Your task to perform on an android device: install app "Google Duo" Image 0: 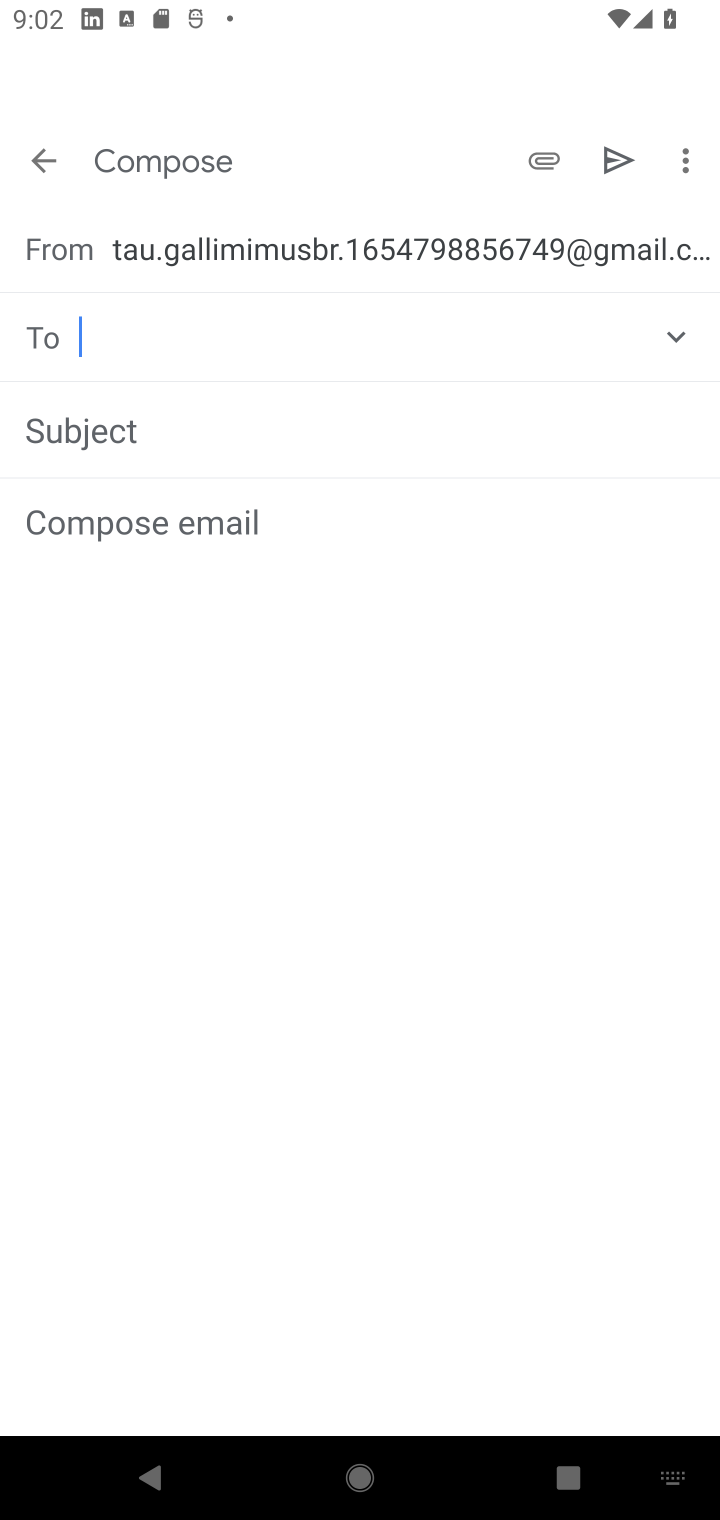
Step 0: press home button
Your task to perform on an android device: install app "Google Duo" Image 1: 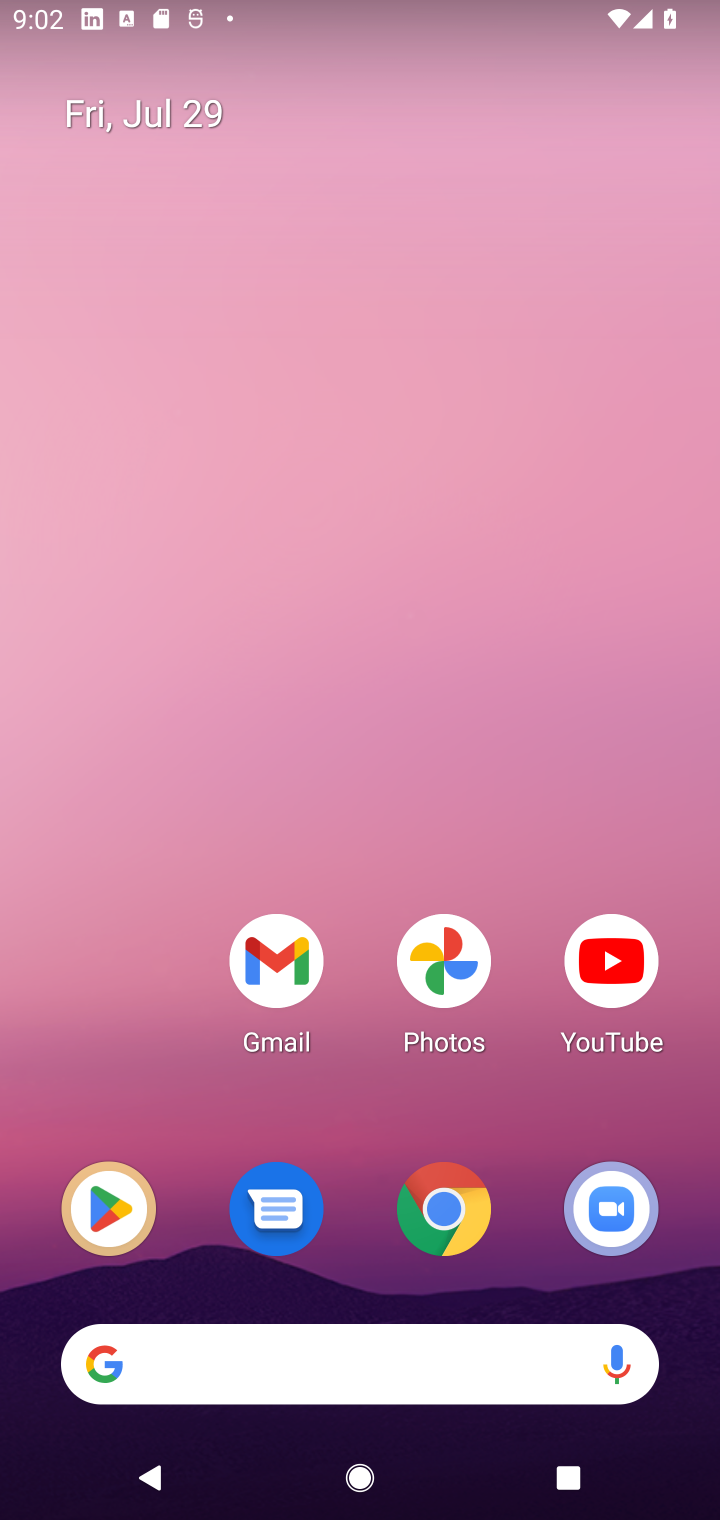
Step 1: click (109, 1210)
Your task to perform on an android device: install app "Google Duo" Image 2: 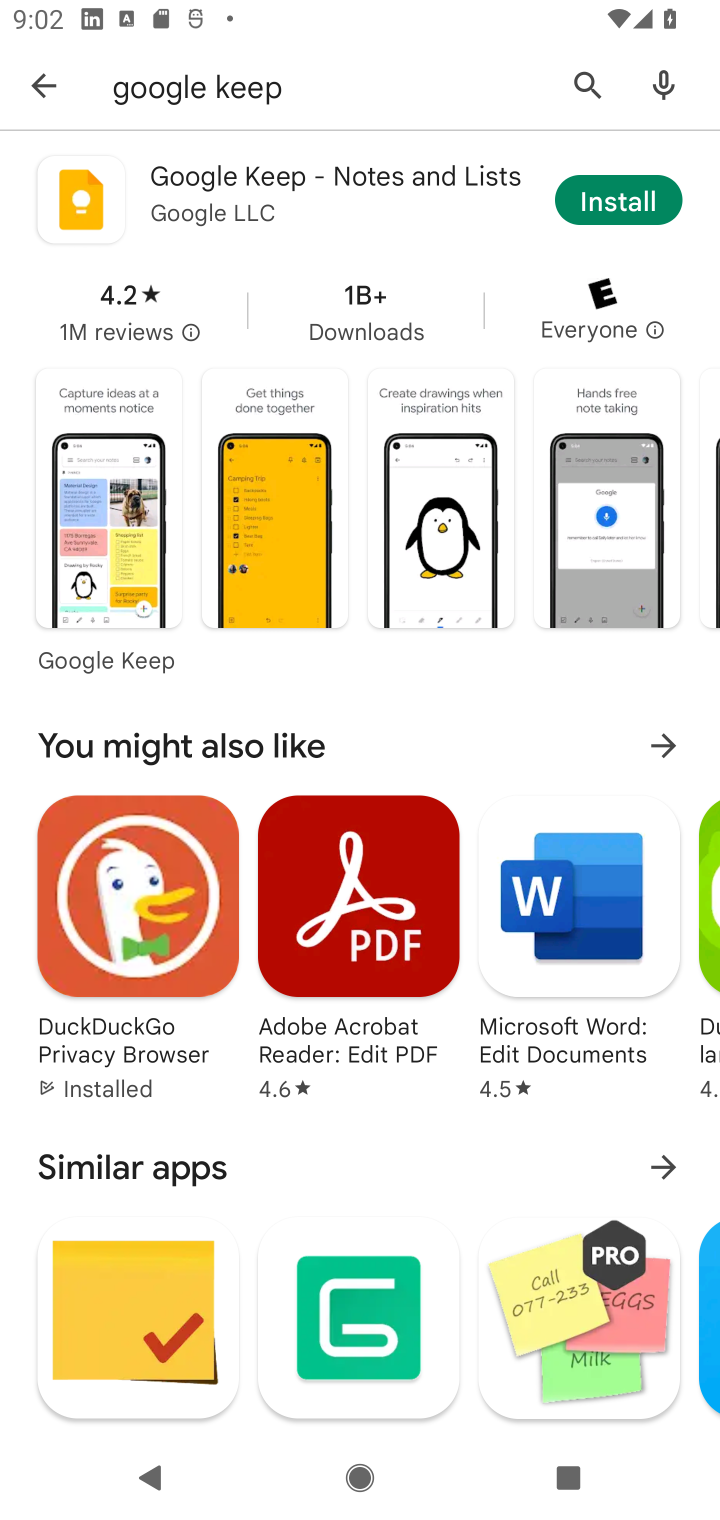
Step 2: click (579, 63)
Your task to perform on an android device: install app "Google Duo" Image 3: 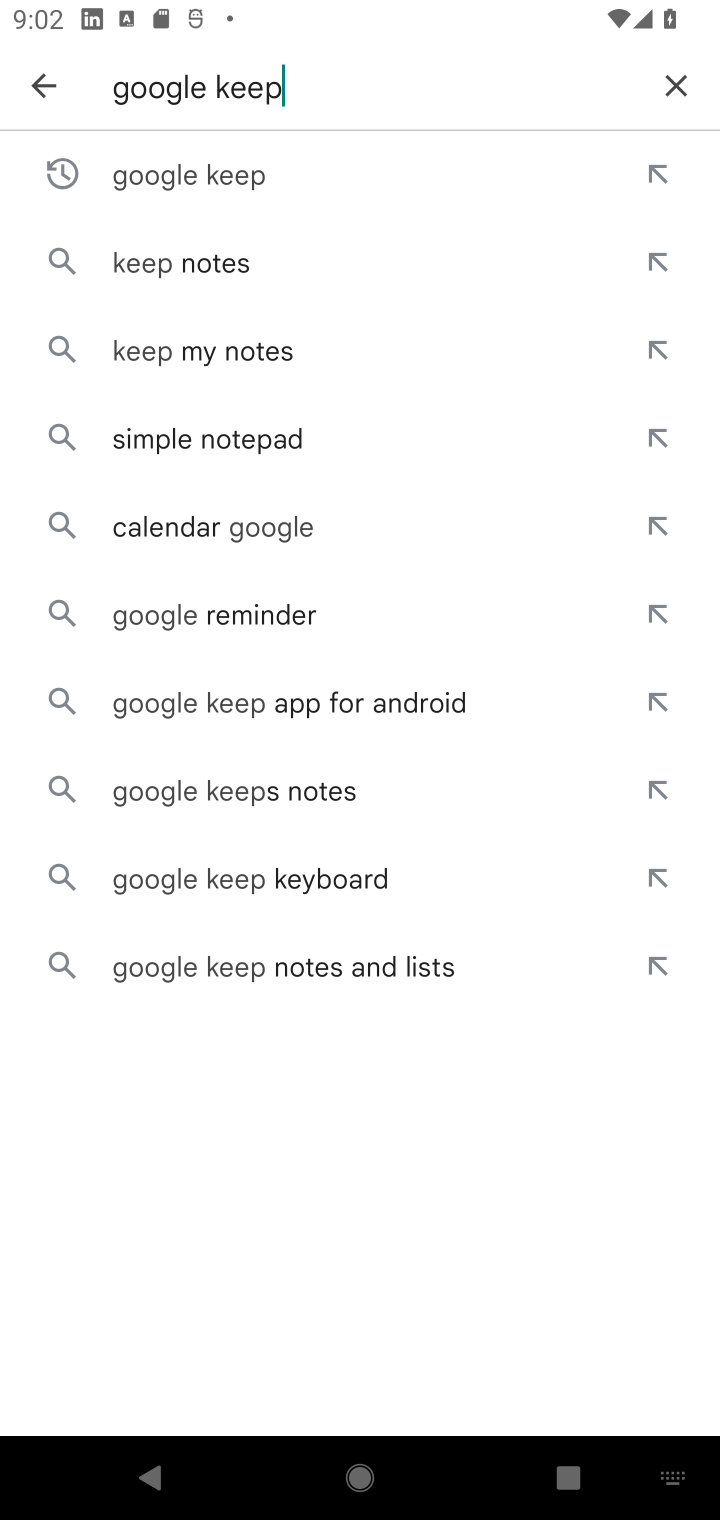
Step 3: click (686, 81)
Your task to perform on an android device: install app "Google Duo" Image 4: 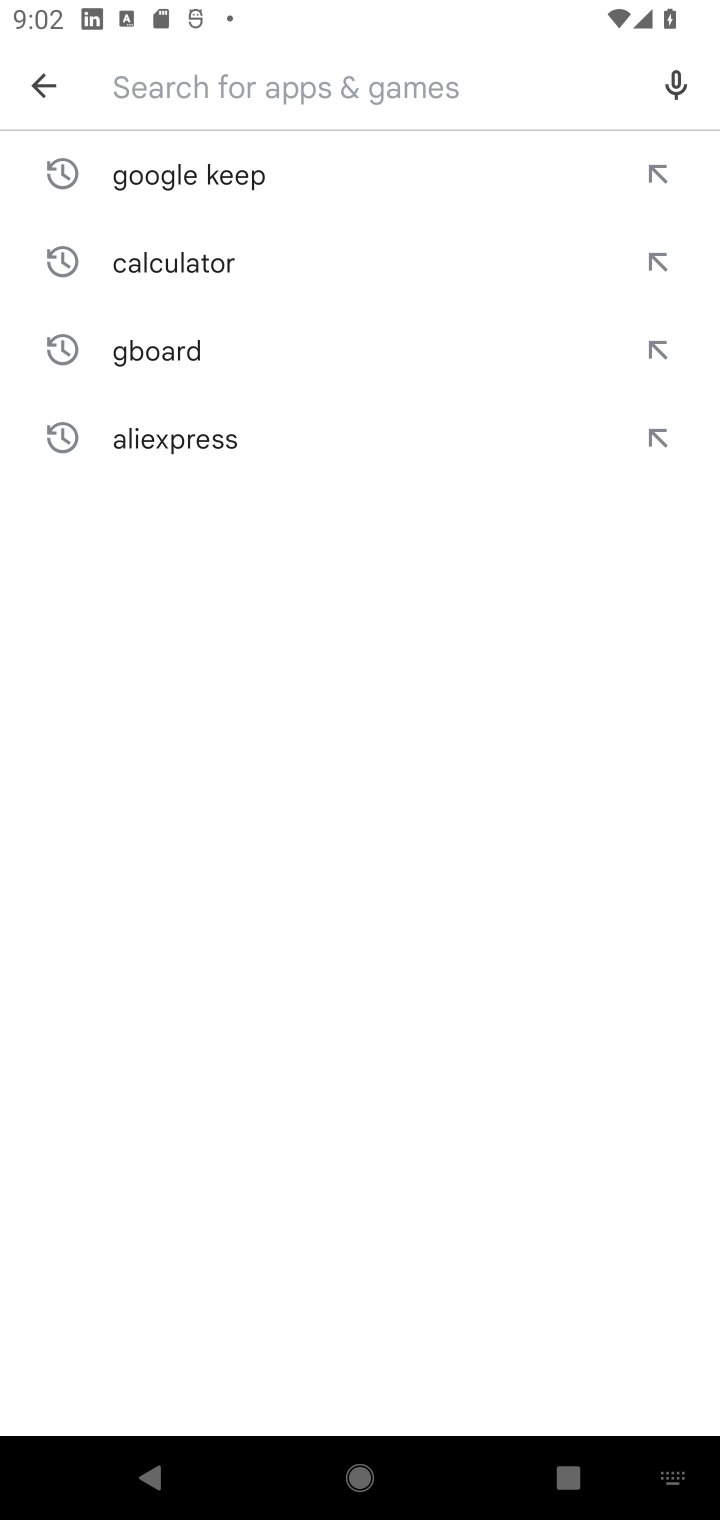
Step 4: type "Google Duo"
Your task to perform on an android device: install app "Google Duo" Image 5: 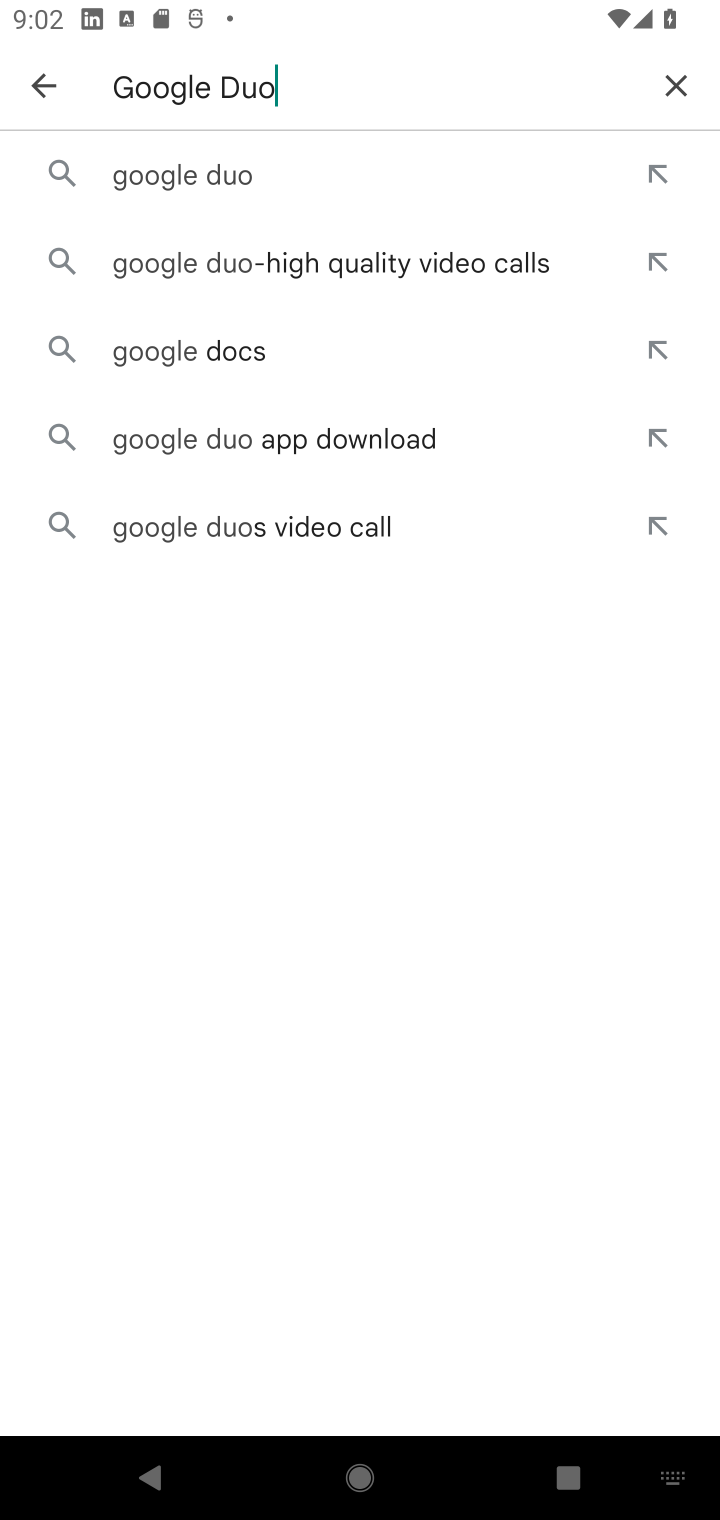
Step 5: click (231, 188)
Your task to perform on an android device: install app "Google Duo" Image 6: 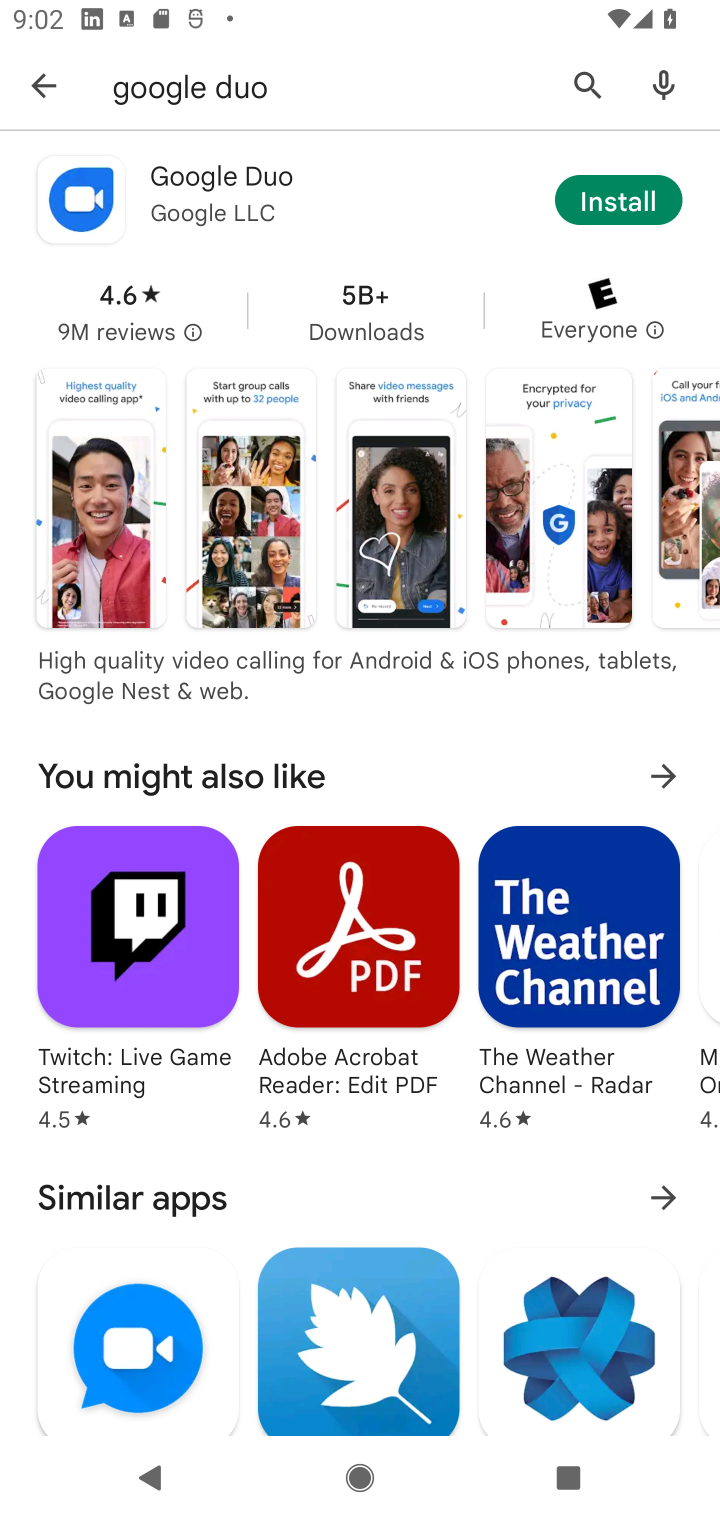
Step 6: click (659, 203)
Your task to perform on an android device: install app "Google Duo" Image 7: 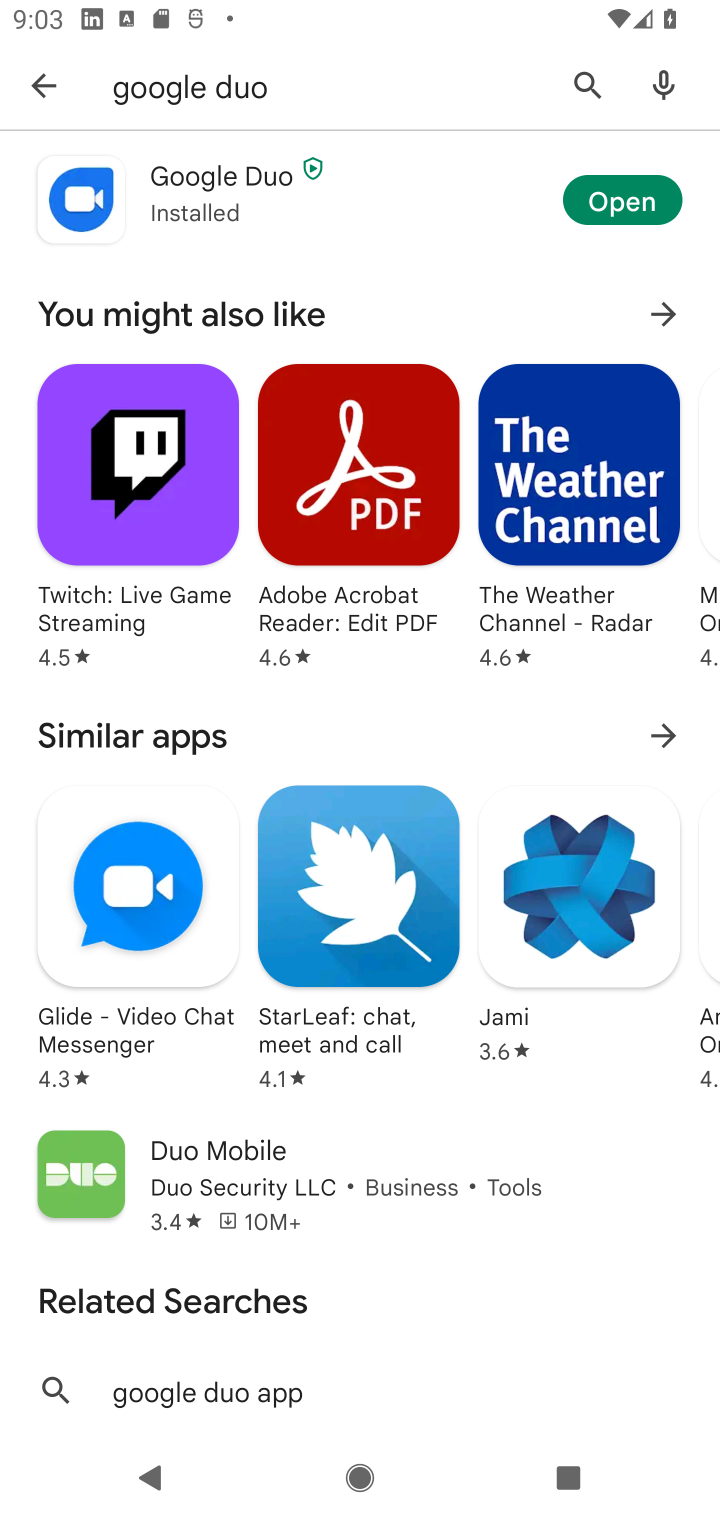
Step 7: task complete